Your task to perform on an android device: Go to display settings Image 0: 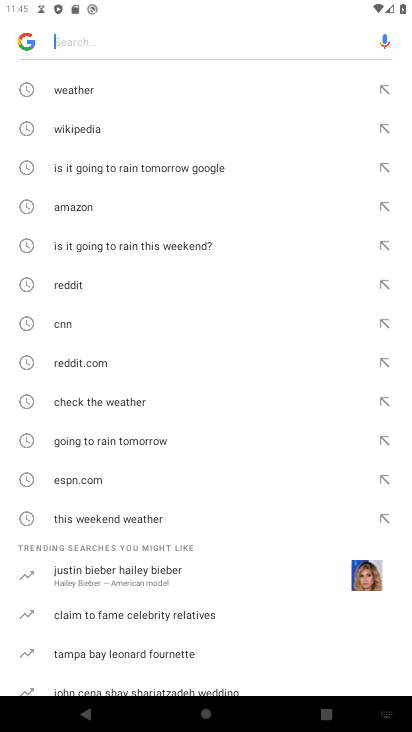
Step 0: press home button
Your task to perform on an android device: Go to display settings Image 1: 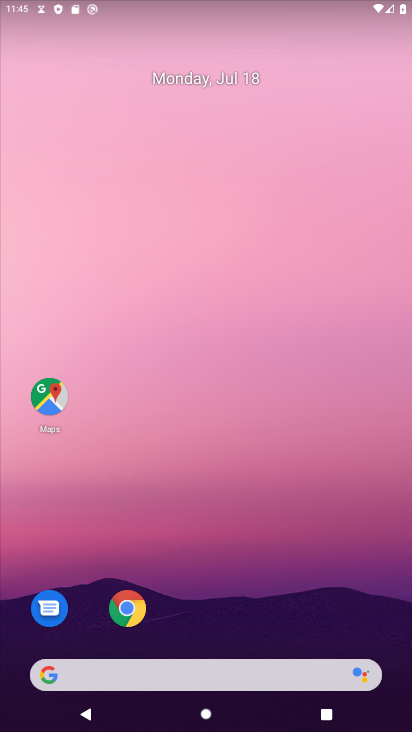
Step 1: drag from (285, 582) to (292, 33)
Your task to perform on an android device: Go to display settings Image 2: 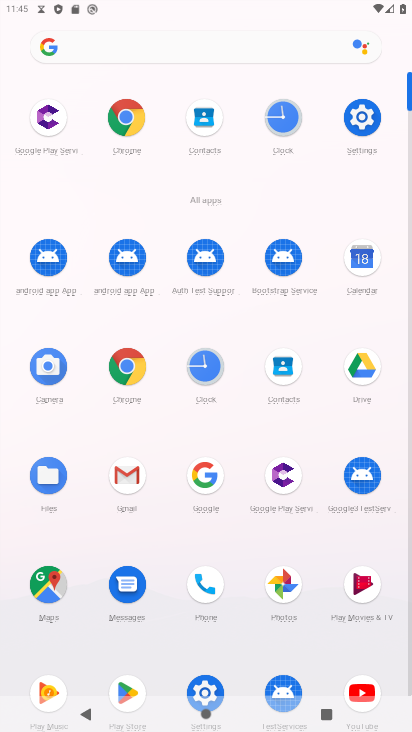
Step 2: click (366, 109)
Your task to perform on an android device: Go to display settings Image 3: 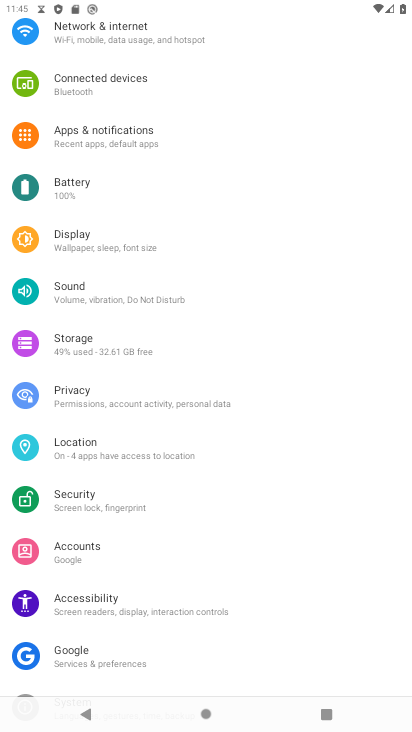
Step 3: drag from (291, 266) to (293, 586)
Your task to perform on an android device: Go to display settings Image 4: 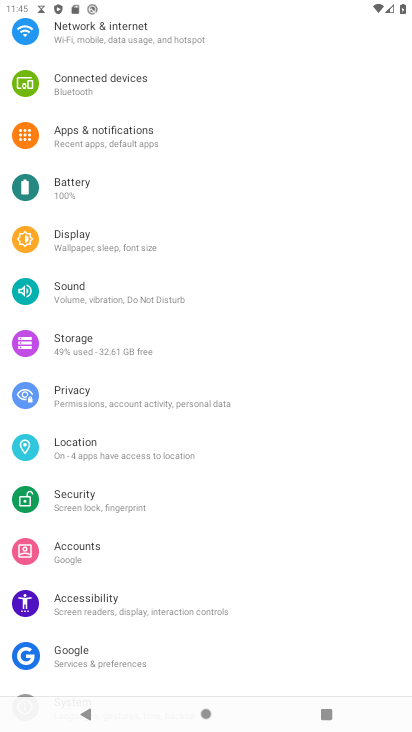
Step 4: click (90, 237)
Your task to perform on an android device: Go to display settings Image 5: 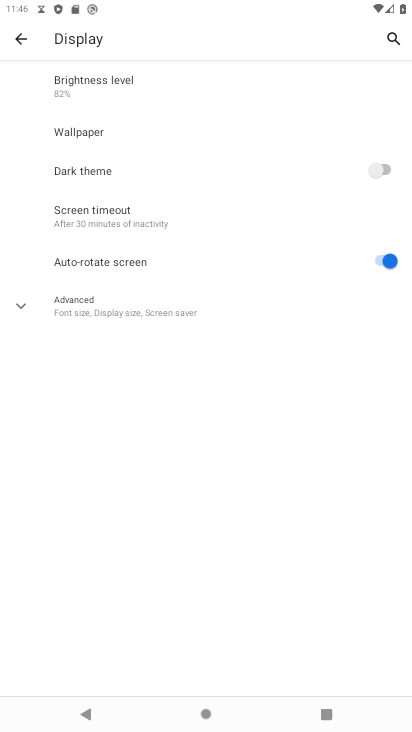
Step 5: task complete